Your task to perform on an android device: toggle javascript in the chrome app Image 0: 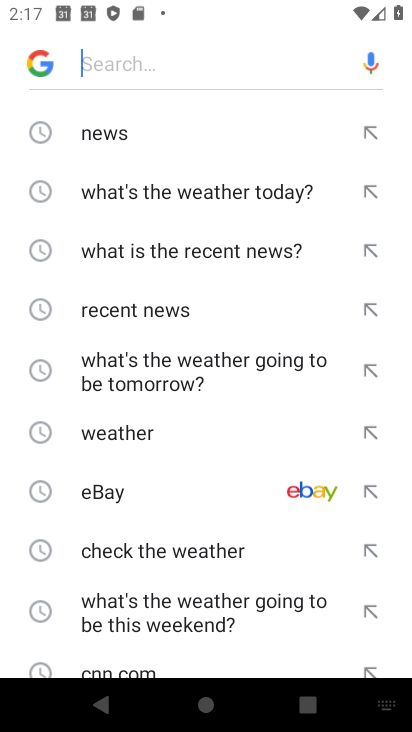
Step 0: drag from (169, 499) to (191, 131)
Your task to perform on an android device: toggle javascript in the chrome app Image 1: 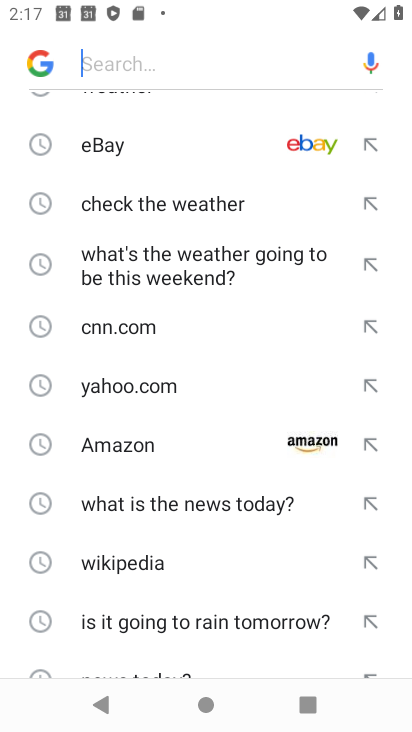
Step 1: drag from (172, 536) to (204, 191)
Your task to perform on an android device: toggle javascript in the chrome app Image 2: 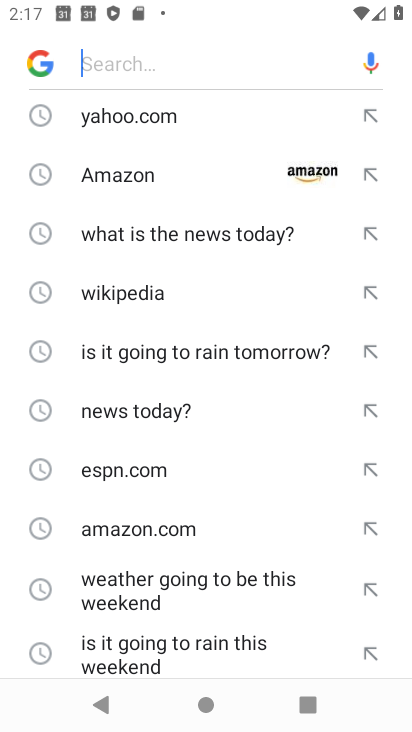
Step 2: drag from (201, 78) to (313, 717)
Your task to perform on an android device: toggle javascript in the chrome app Image 3: 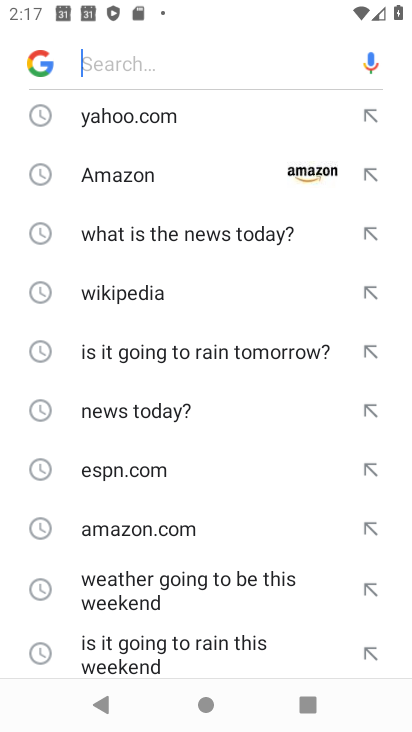
Step 3: press home button
Your task to perform on an android device: toggle javascript in the chrome app Image 4: 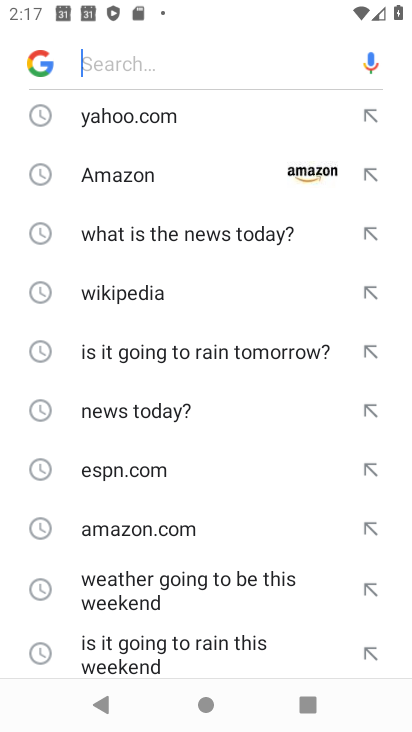
Step 4: click (394, 496)
Your task to perform on an android device: toggle javascript in the chrome app Image 5: 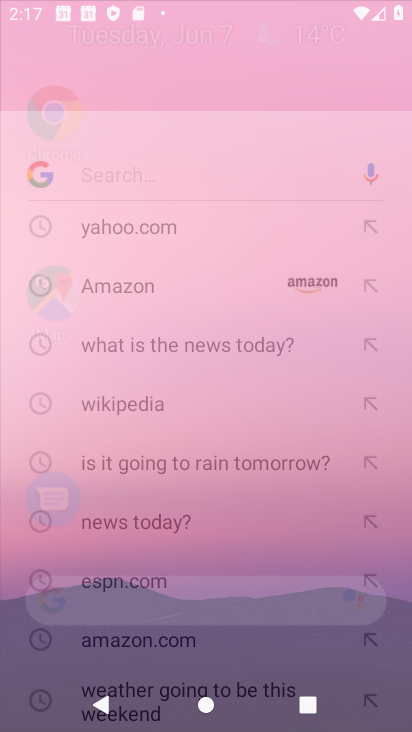
Step 5: drag from (176, 591) to (220, 247)
Your task to perform on an android device: toggle javascript in the chrome app Image 6: 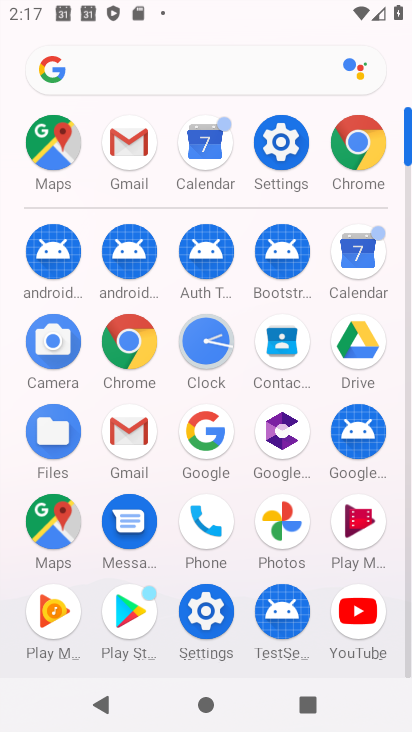
Step 6: click (119, 340)
Your task to perform on an android device: toggle javascript in the chrome app Image 7: 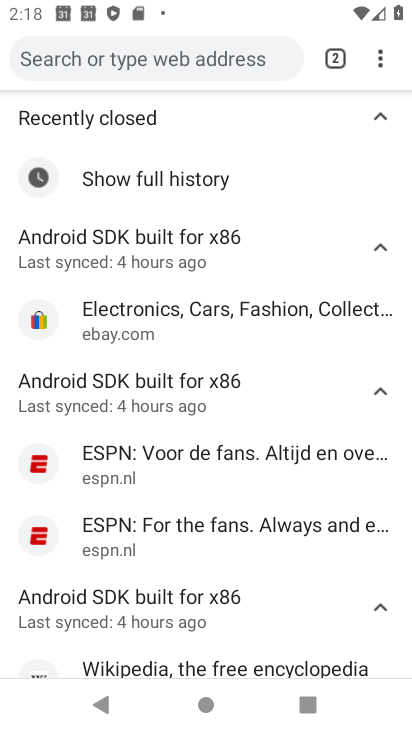
Step 7: click (384, 58)
Your task to perform on an android device: toggle javascript in the chrome app Image 8: 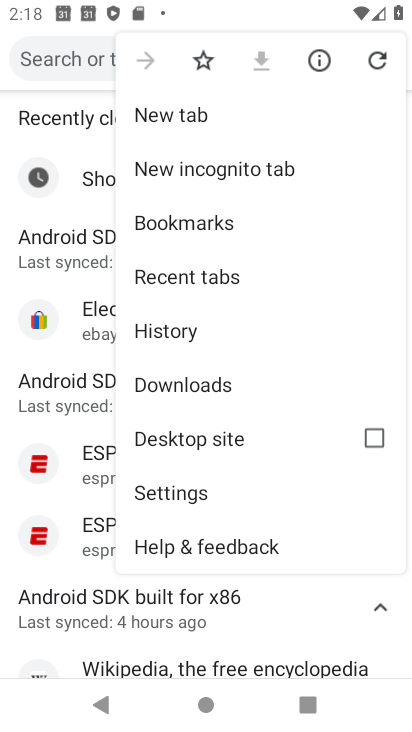
Step 8: click (172, 500)
Your task to perform on an android device: toggle javascript in the chrome app Image 9: 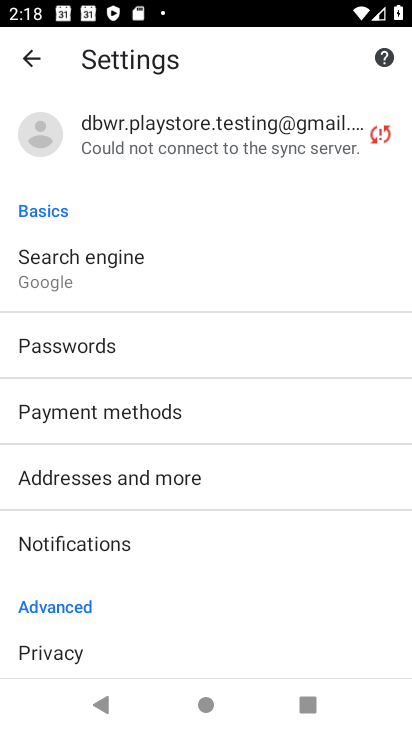
Step 9: drag from (143, 456) to (217, 169)
Your task to perform on an android device: toggle javascript in the chrome app Image 10: 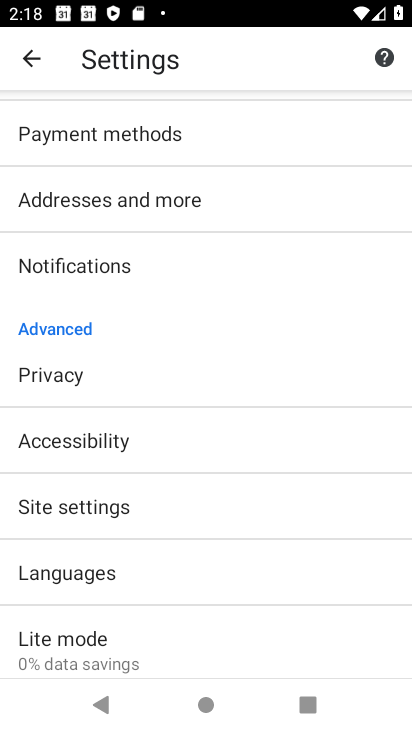
Step 10: click (139, 498)
Your task to perform on an android device: toggle javascript in the chrome app Image 11: 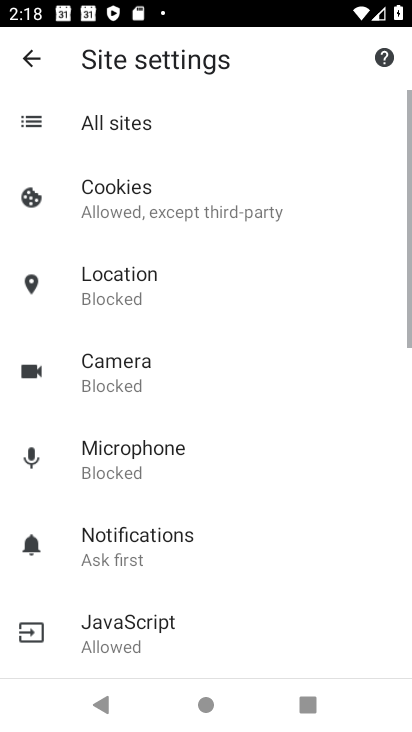
Step 11: drag from (225, 607) to (312, 139)
Your task to perform on an android device: toggle javascript in the chrome app Image 12: 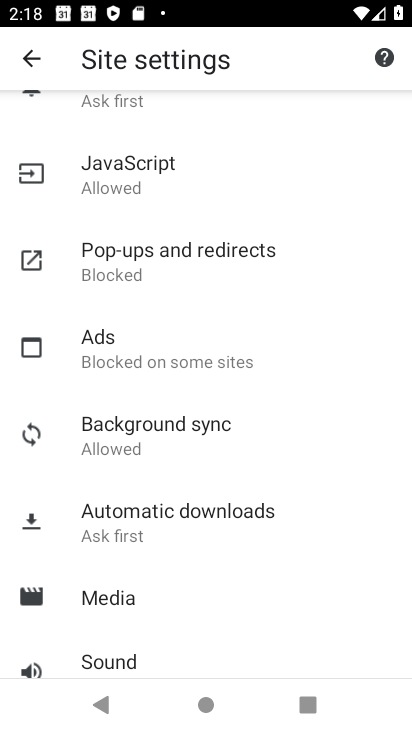
Step 12: click (152, 175)
Your task to perform on an android device: toggle javascript in the chrome app Image 13: 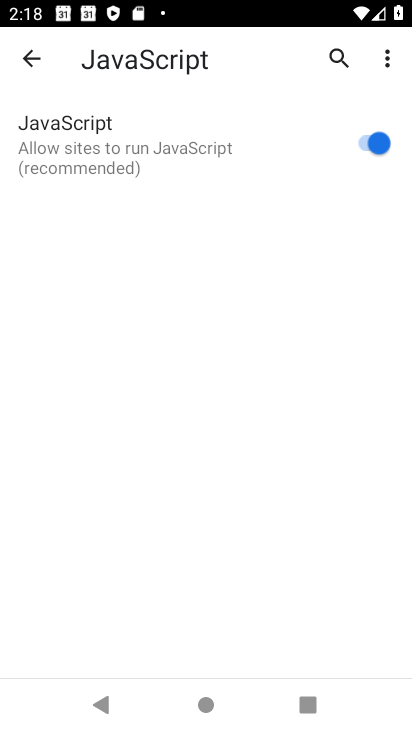
Step 13: drag from (239, 545) to (315, 188)
Your task to perform on an android device: toggle javascript in the chrome app Image 14: 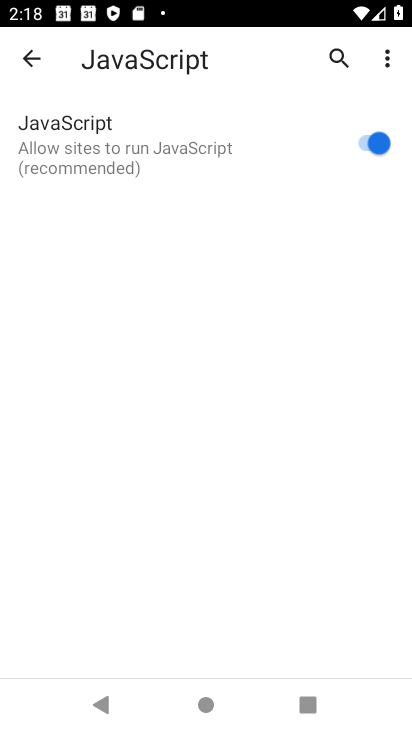
Step 14: drag from (242, 494) to (278, 329)
Your task to perform on an android device: toggle javascript in the chrome app Image 15: 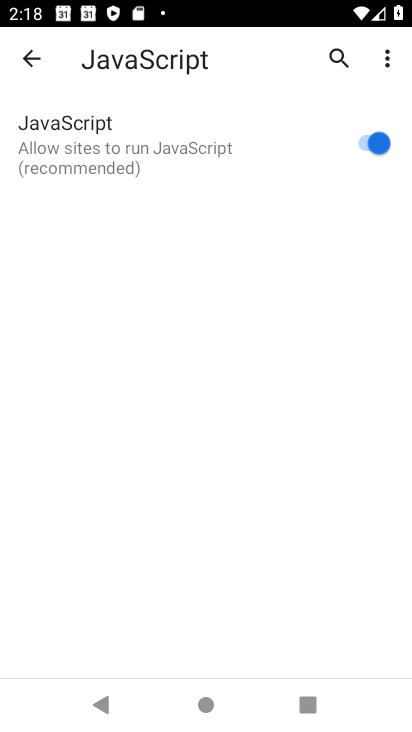
Step 15: click (365, 136)
Your task to perform on an android device: toggle javascript in the chrome app Image 16: 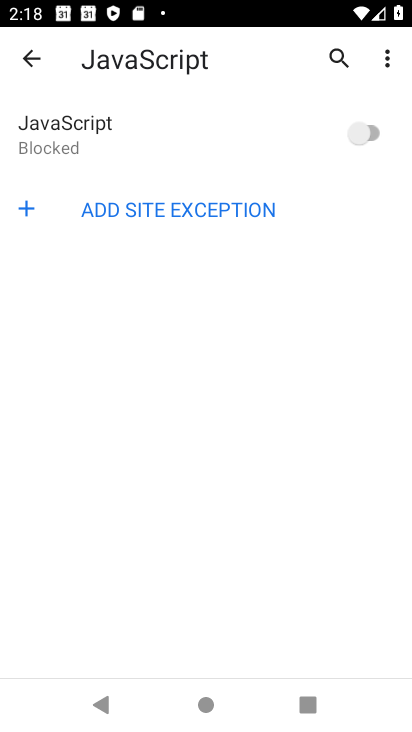
Step 16: task complete